Your task to perform on an android device: turn on notifications settings in the gmail app Image 0: 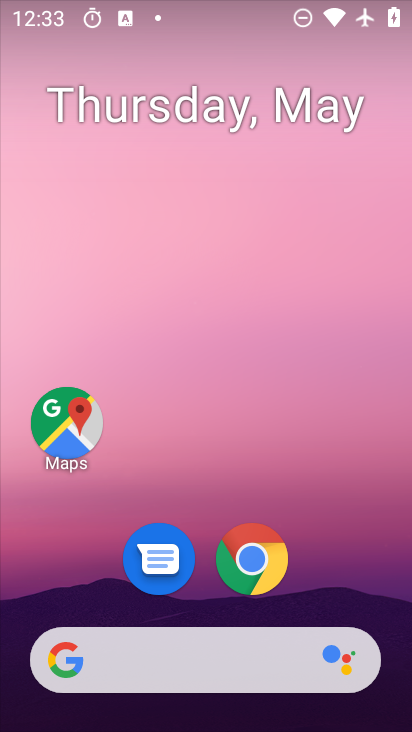
Step 0: drag from (253, 475) to (272, 131)
Your task to perform on an android device: turn on notifications settings in the gmail app Image 1: 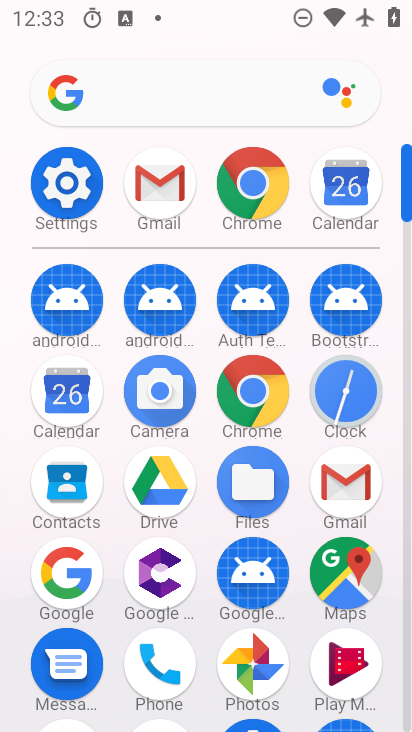
Step 1: drag from (216, 422) to (242, 84)
Your task to perform on an android device: turn on notifications settings in the gmail app Image 2: 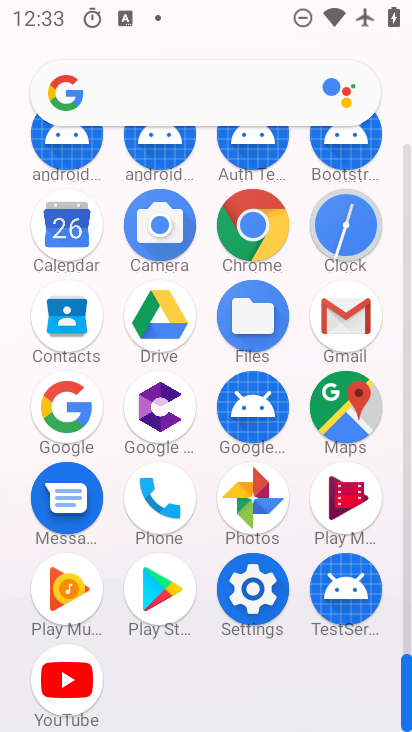
Step 2: click (343, 322)
Your task to perform on an android device: turn on notifications settings in the gmail app Image 3: 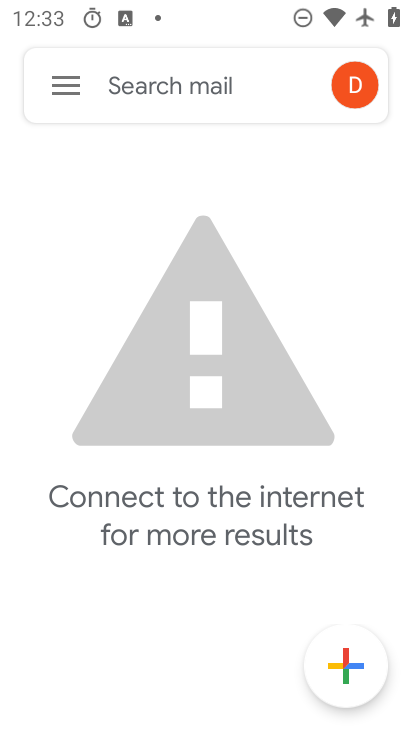
Step 3: click (63, 94)
Your task to perform on an android device: turn on notifications settings in the gmail app Image 4: 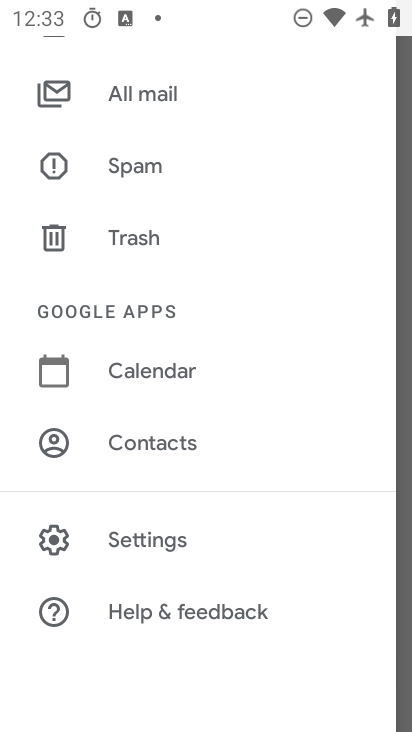
Step 4: click (154, 542)
Your task to perform on an android device: turn on notifications settings in the gmail app Image 5: 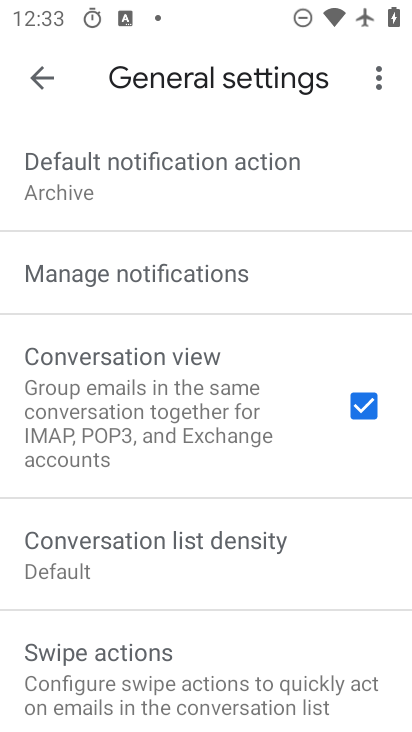
Step 5: click (166, 276)
Your task to perform on an android device: turn on notifications settings in the gmail app Image 6: 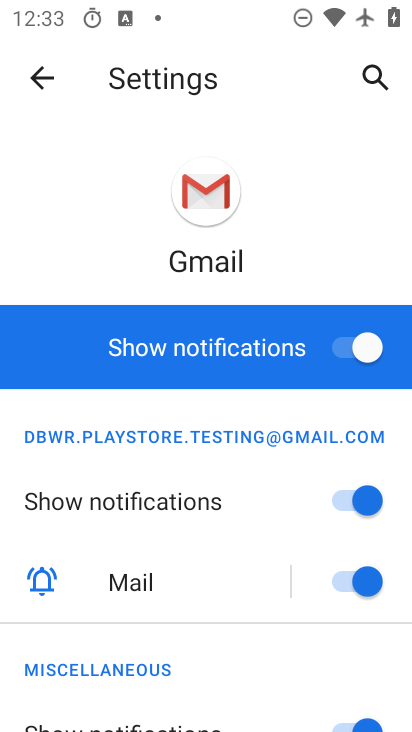
Step 6: task complete